Your task to perform on an android device: set the stopwatch Image 0: 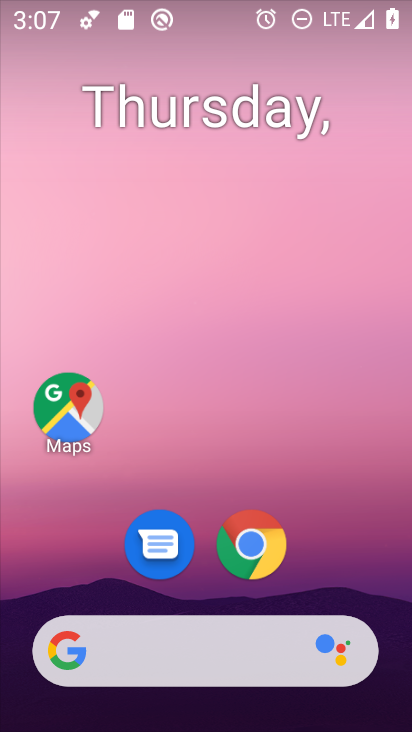
Step 0: drag from (356, 562) to (367, 157)
Your task to perform on an android device: set the stopwatch Image 1: 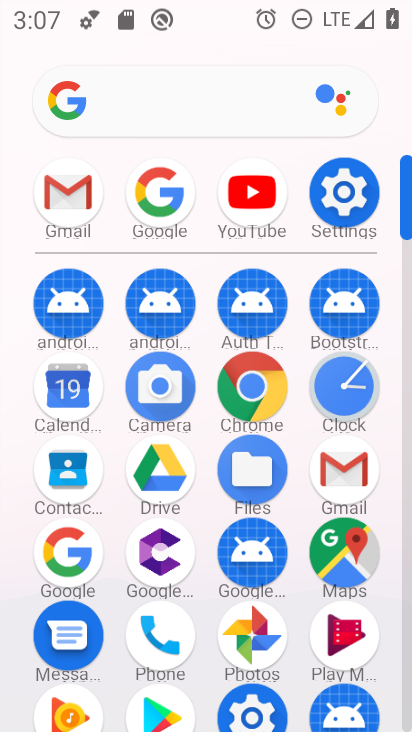
Step 1: click (335, 395)
Your task to perform on an android device: set the stopwatch Image 2: 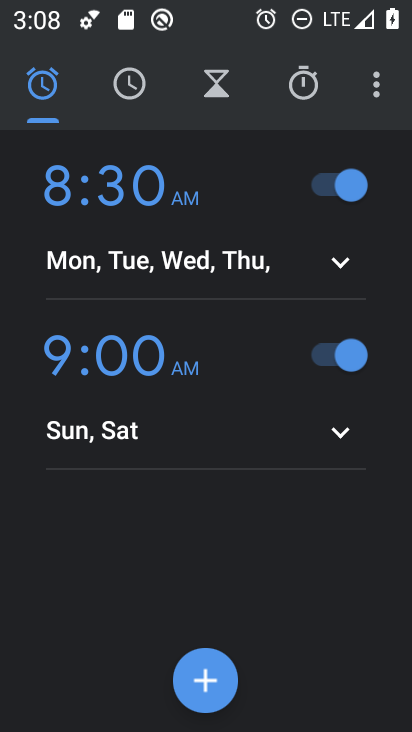
Step 2: click (316, 89)
Your task to perform on an android device: set the stopwatch Image 3: 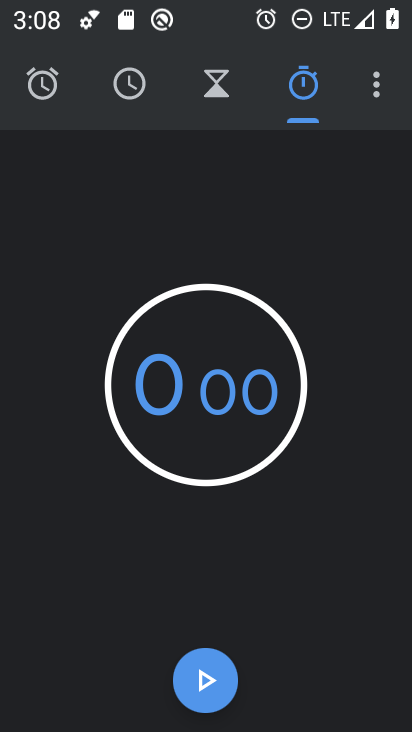
Step 3: click (196, 703)
Your task to perform on an android device: set the stopwatch Image 4: 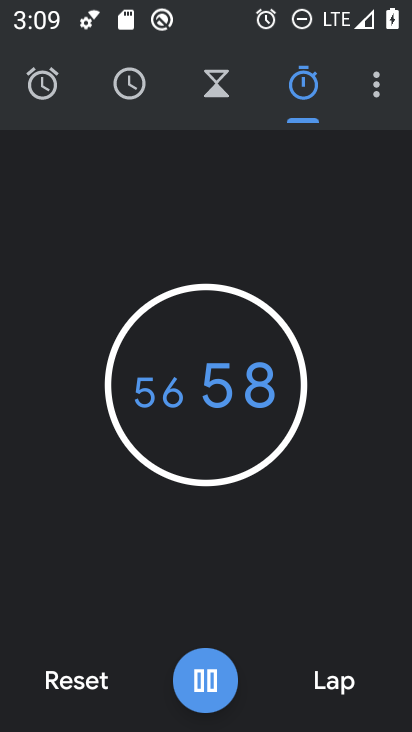
Step 4: task complete